Your task to perform on an android device: Open the calendar app, open the side menu, and click the "Day" option Image 0: 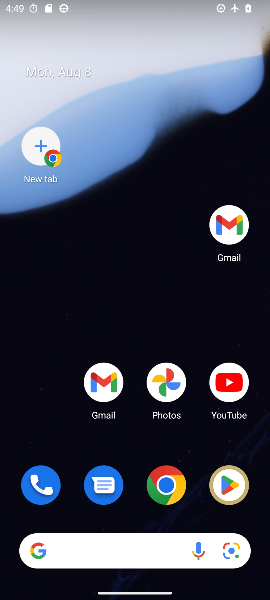
Step 0: drag from (157, 473) to (157, 177)
Your task to perform on an android device: Open the calendar app, open the side menu, and click the "Day" option Image 1: 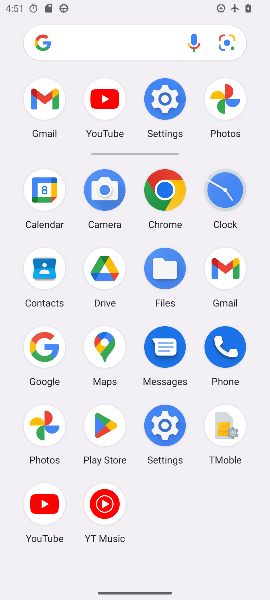
Step 1: click (41, 188)
Your task to perform on an android device: Open the calendar app, open the side menu, and click the "Day" option Image 2: 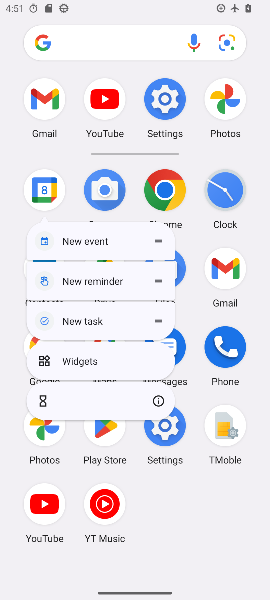
Step 2: click (44, 192)
Your task to perform on an android device: Open the calendar app, open the side menu, and click the "Day" option Image 3: 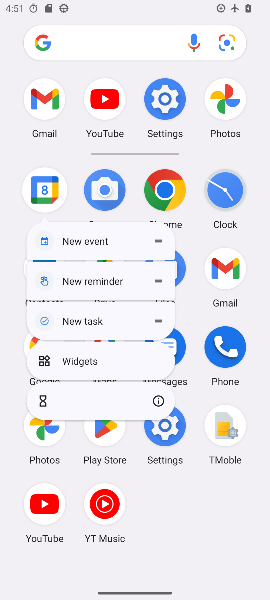
Step 3: click (44, 192)
Your task to perform on an android device: Open the calendar app, open the side menu, and click the "Day" option Image 4: 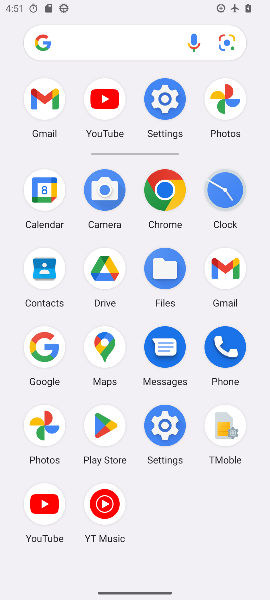
Step 4: click (44, 192)
Your task to perform on an android device: Open the calendar app, open the side menu, and click the "Day" option Image 5: 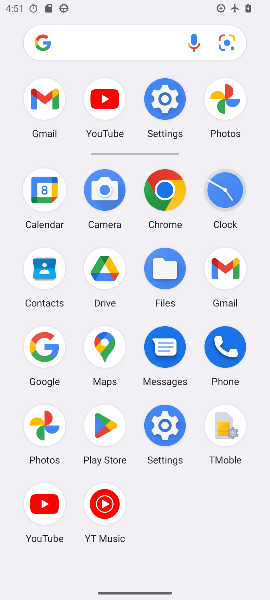
Step 5: click (44, 192)
Your task to perform on an android device: Open the calendar app, open the side menu, and click the "Day" option Image 6: 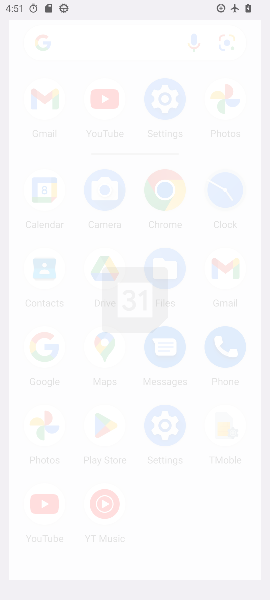
Step 6: click (42, 193)
Your task to perform on an android device: Open the calendar app, open the side menu, and click the "Day" option Image 7: 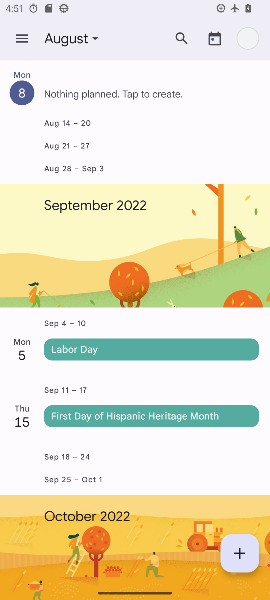
Step 7: click (22, 37)
Your task to perform on an android device: Open the calendar app, open the side menu, and click the "Day" option Image 8: 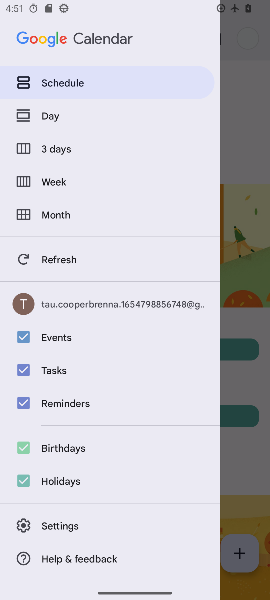
Step 8: click (44, 113)
Your task to perform on an android device: Open the calendar app, open the side menu, and click the "Day" option Image 9: 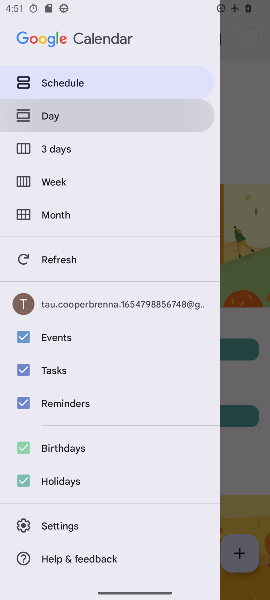
Step 9: click (40, 116)
Your task to perform on an android device: Open the calendar app, open the side menu, and click the "Day" option Image 10: 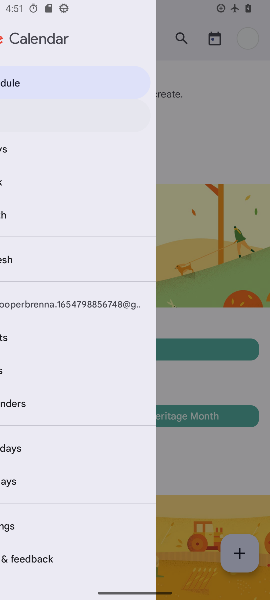
Step 10: click (40, 116)
Your task to perform on an android device: Open the calendar app, open the side menu, and click the "Day" option Image 11: 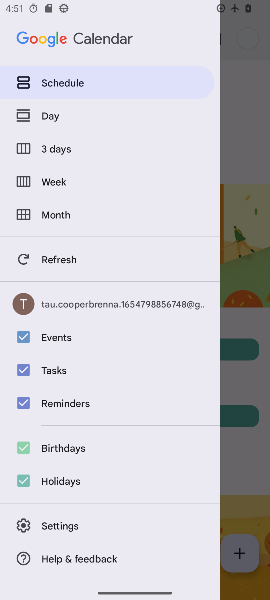
Step 11: task complete